Your task to perform on an android device: all mails in gmail Image 0: 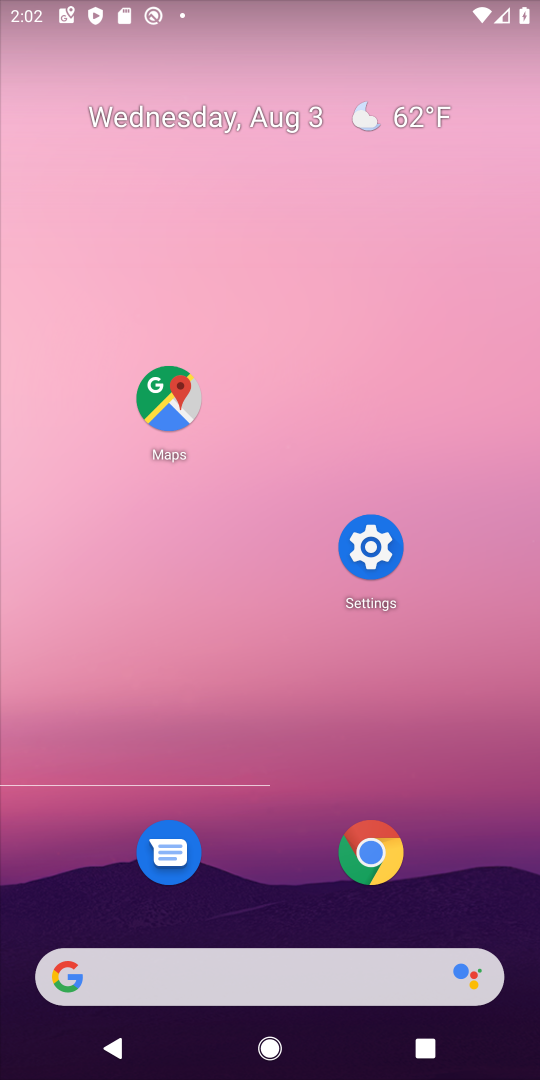
Step 0: press home button
Your task to perform on an android device: all mails in gmail Image 1: 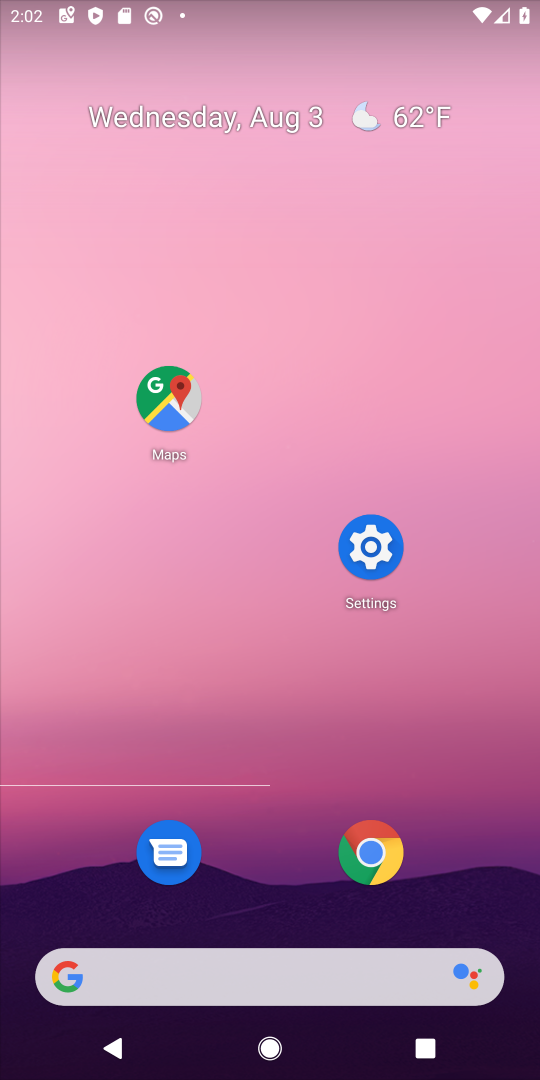
Step 1: drag from (250, 968) to (412, 171)
Your task to perform on an android device: all mails in gmail Image 2: 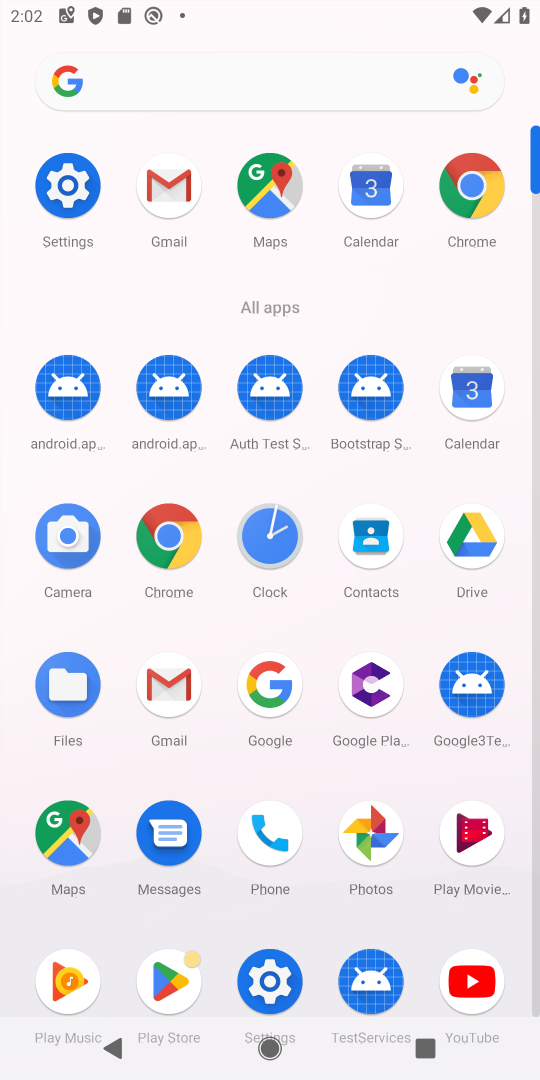
Step 2: click (171, 194)
Your task to perform on an android device: all mails in gmail Image 3: 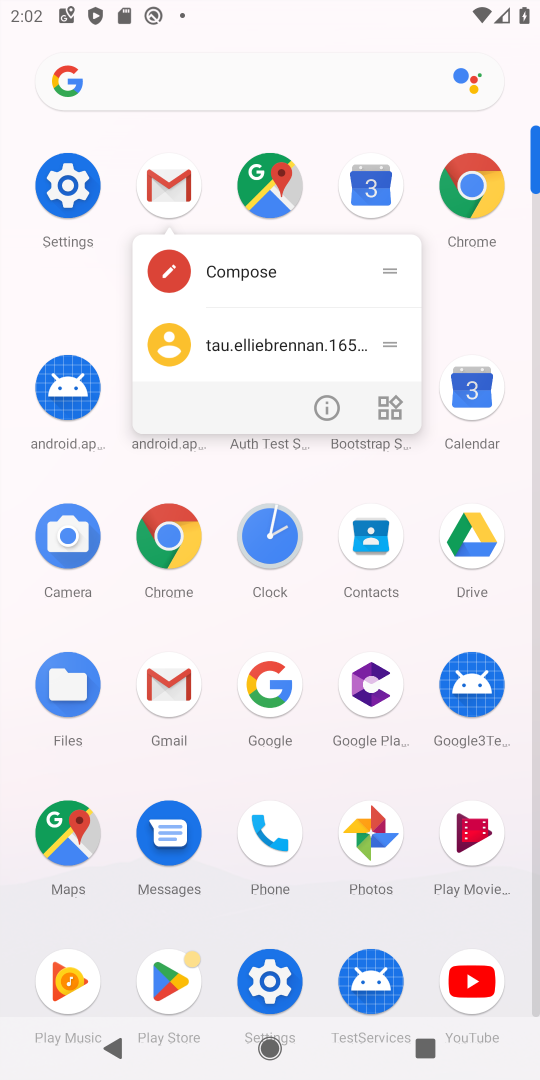
Step 3: click (170, 184)
Your task to perform on an android device: all mails in gmail Image 4: 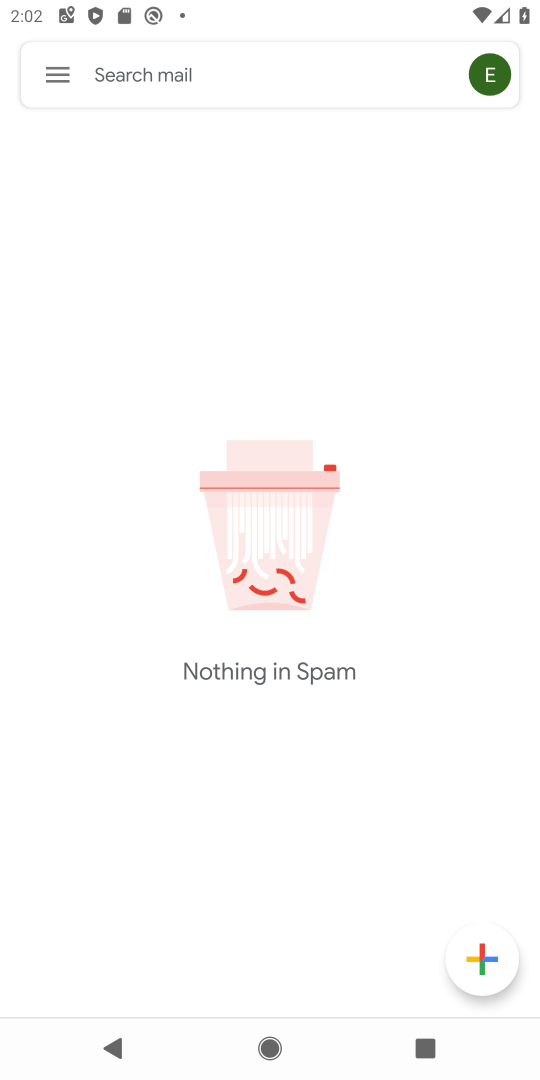
Step 4: click (50, 68)
Your task to perform on an android device: all mails in gmail Image 5: 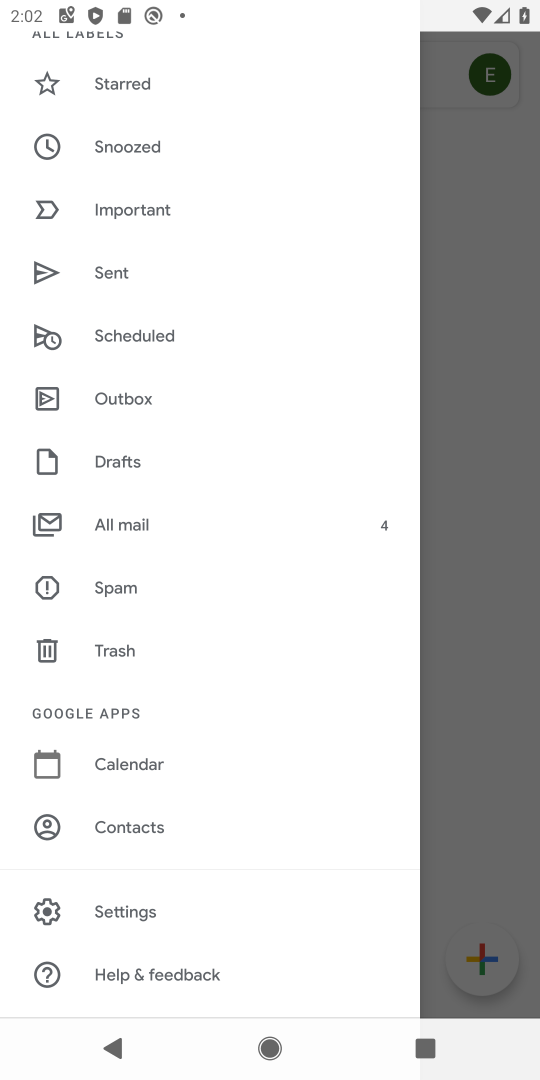
Step 5: click (146, 532)
Your task to perform on an android device: all mails in gmail Image 6: 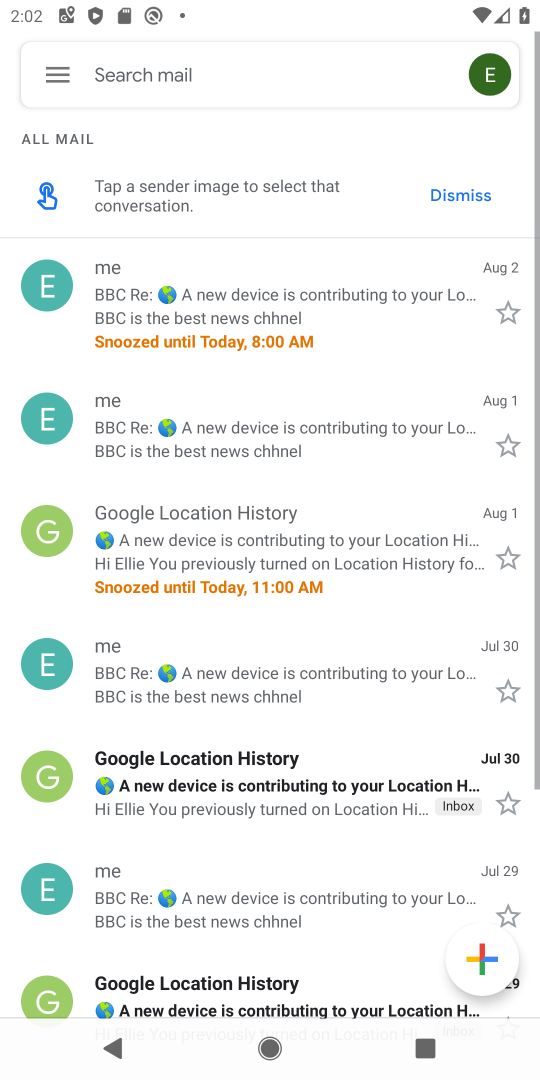
Step 6: task complete